Your task to perform on an android device: turn off location history Image 0: 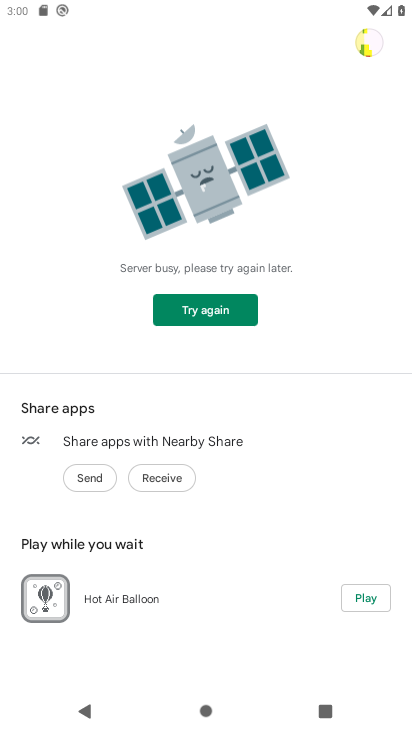
Step 0: press home button
Your task to perform on an android device: turn off location history Image 1: 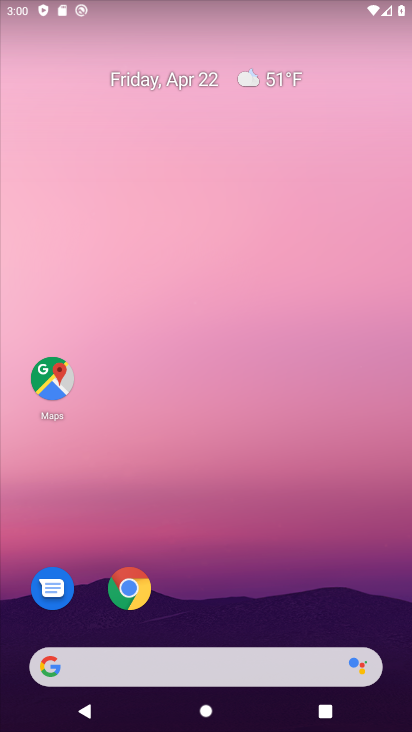
Step 1: drag from (320, 603) to (358, 140)
Your task to perform on an android device: turn off location history Image 2: 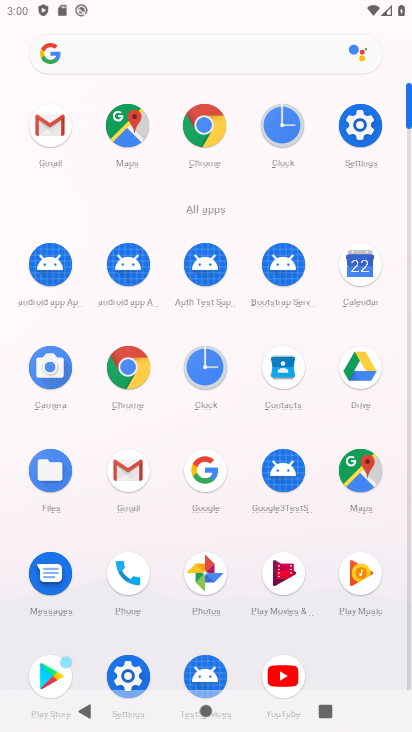
Step 2: click (360, 128)
Your task to perform on an android device: turn off location history Image 3: 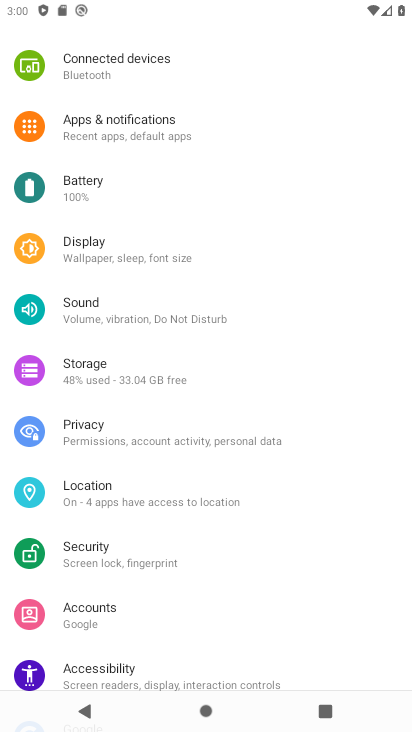
Step 3: drag from (344, 298) to (322, 446)
Your task to perform on an android device: turn off location history Image 4: 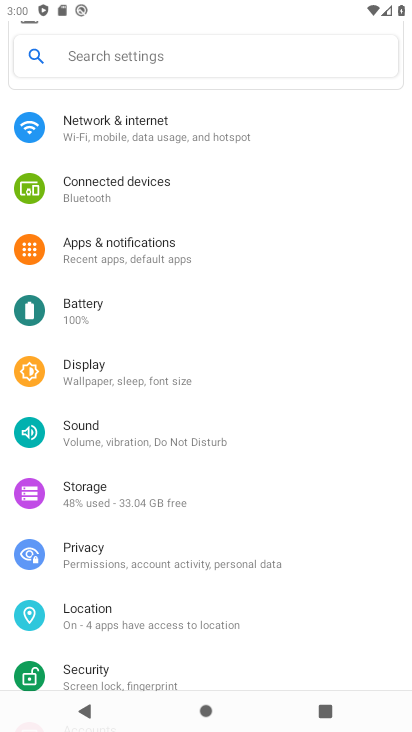
Step 4: drag from (325, 242) to (323, 440)
Your task to perform on an android device: turn off location history Image 5: 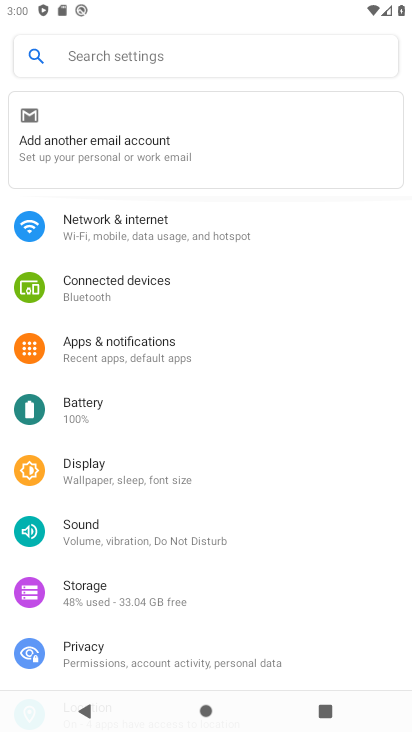
Step 5: drag from (322, 510) to (335, 359)
Your task to perform on an android device: turn off location history Image 6: 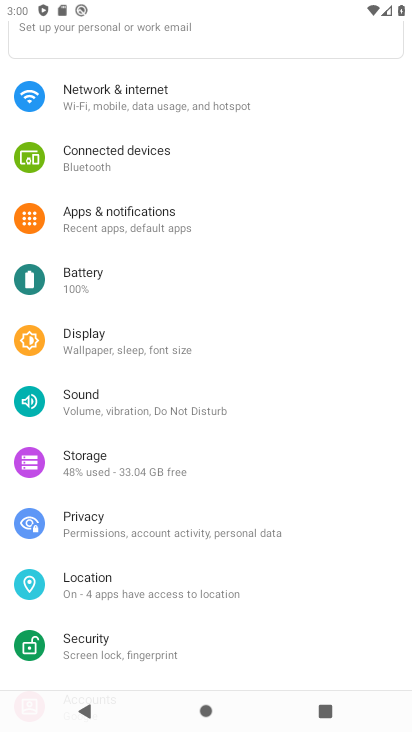
Step 6: drag from (328, 551) to (336, 387)
Your task to perform on an android device: turn off location history Image 7: 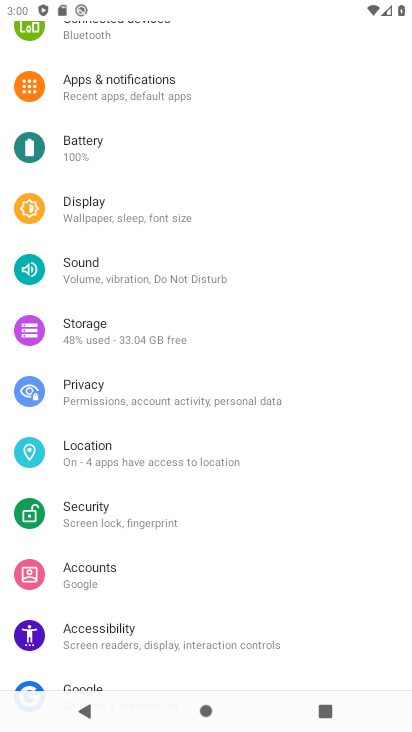
Step 7: drag from (309, 532) to (320, 381)
Your task to perform on an android device: turn off location history Image 8: 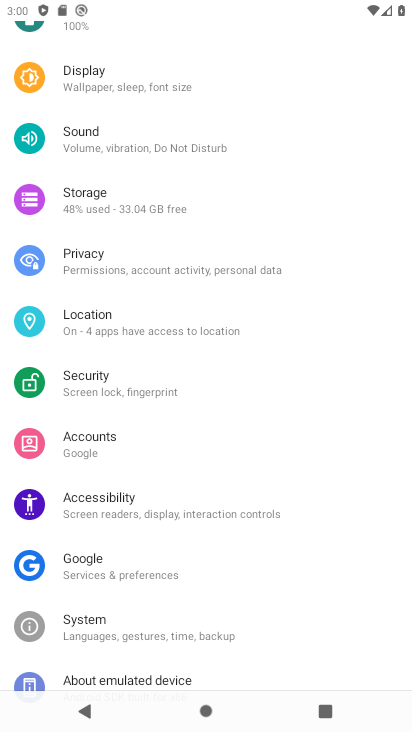
Step 8: click (221, 316)
Your task to perform on an android device: turn off location history Image 9: 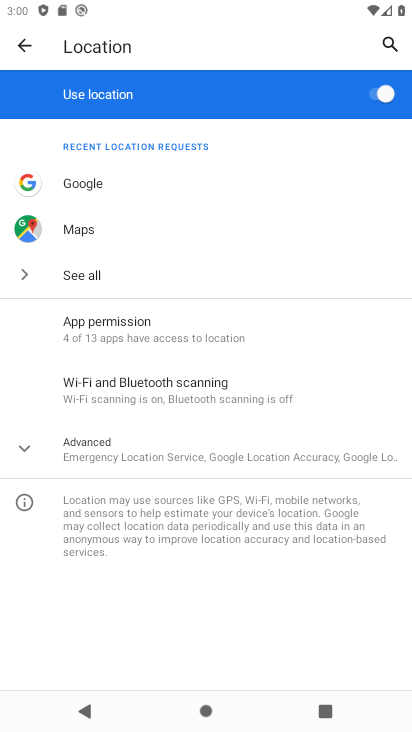
Step 9: click (230, 456)
Your task to perform on an android device: turn off location history Image 10: 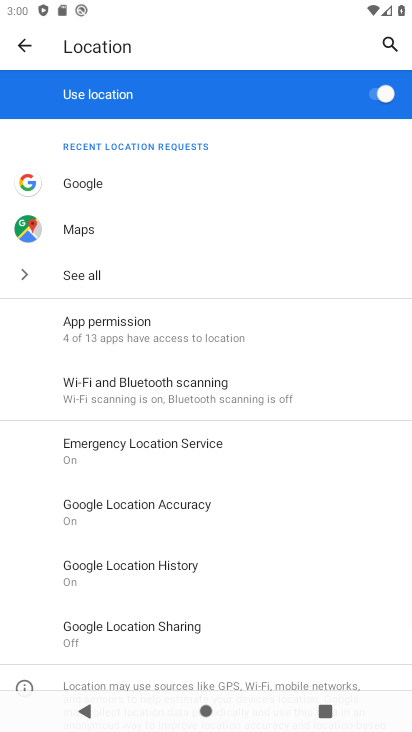
Step 10: drag from (276, 587) to (306, 431)
Your task to perform on an android device: turn off location history Image 11: 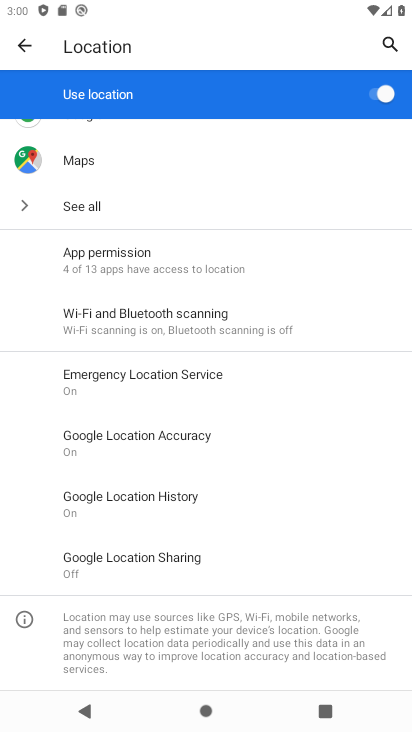
Step 11: drag from (287, 600) to (282, 417)
Your task to perform on an android device: turn off location history Image 12: 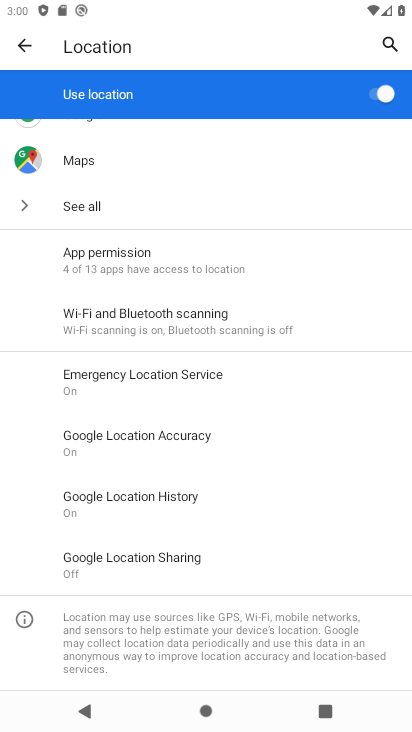
Step 12: click (177, 503)
Your task to perform on an android device: turn off location history Image 13: 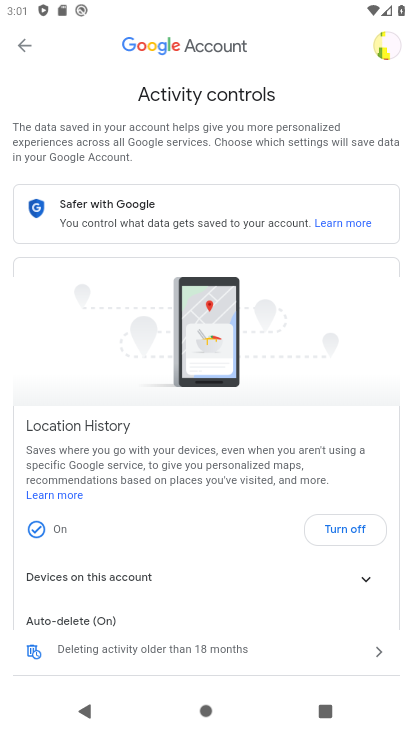
Step 13: click (348, 525)
Your task to perform on an android device: turn off location history Image 14: 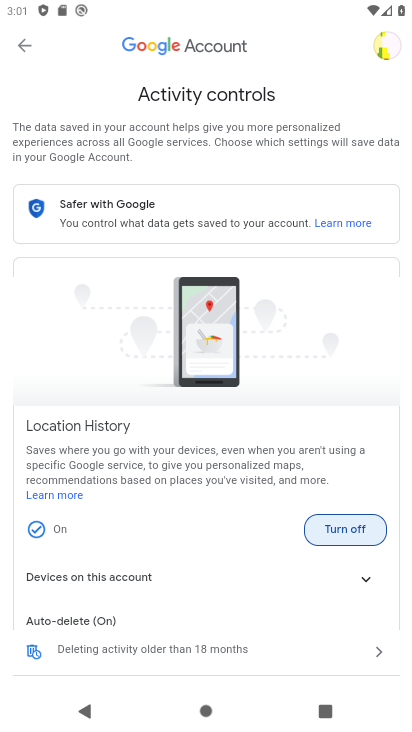
Step 14: click (327, 527)
Your task to perform on an android device: turn off location history Image 15: 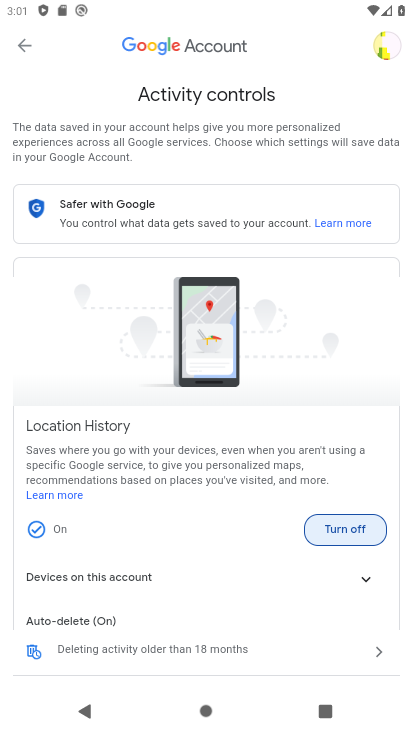
Step 15: click (316, 531)
Your task to perform on an android device: turn off location history Image 16: 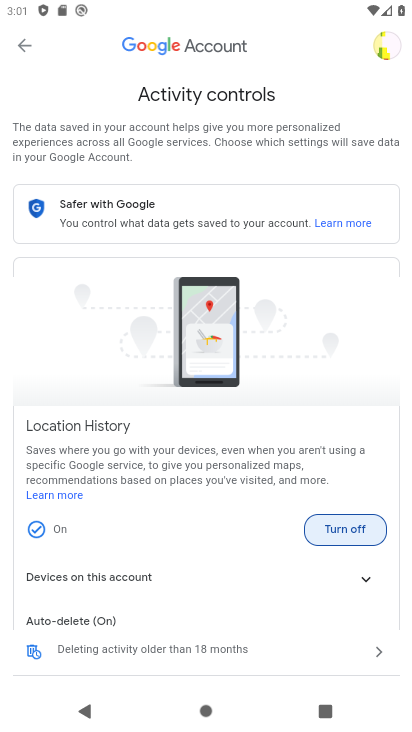
Step 16: click (347, 526)
Your task to perform on an android device: turn off location history Image 17: 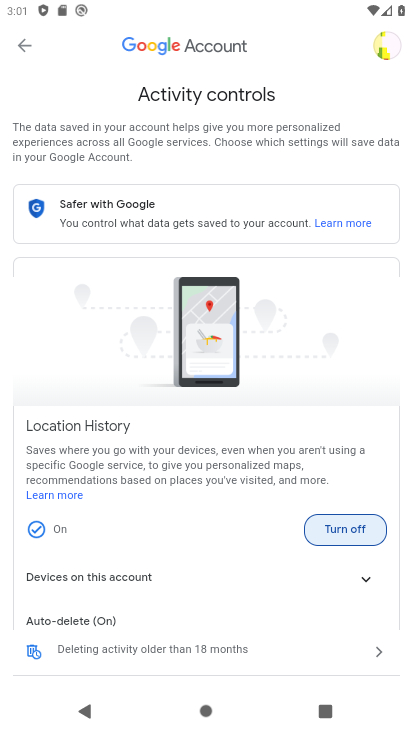
Step 17: click (364, 539)
Your task to perform on an android device: turn off location history Image 18: 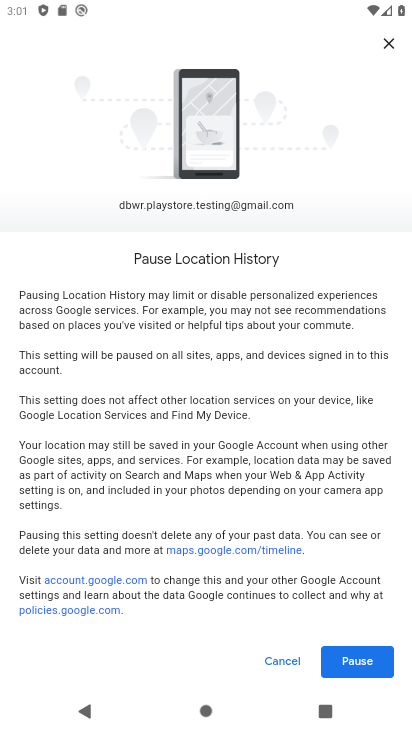
Step 18: click (359, 661)
Your task to perform on an android device: turn off location history Image 19: 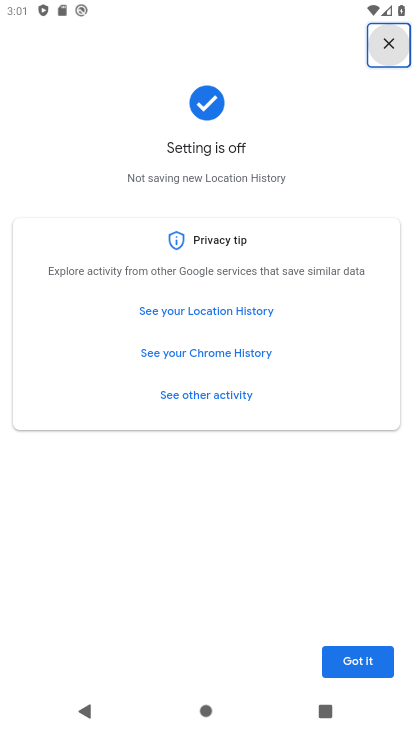
Step 19: task complete